Your task to perform on an android device: make emails show in primary in the gmail app Image 0: 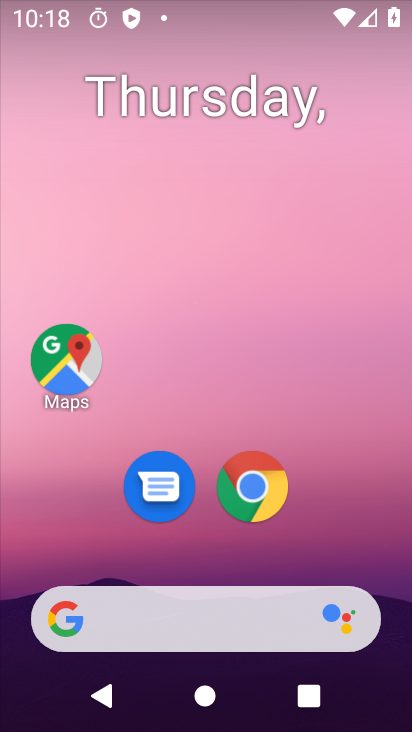
Step 0: drag from (387, 592) to (359, 276)
Your task to perform on an android device: make emails show in primary in the gmail app Image 1: 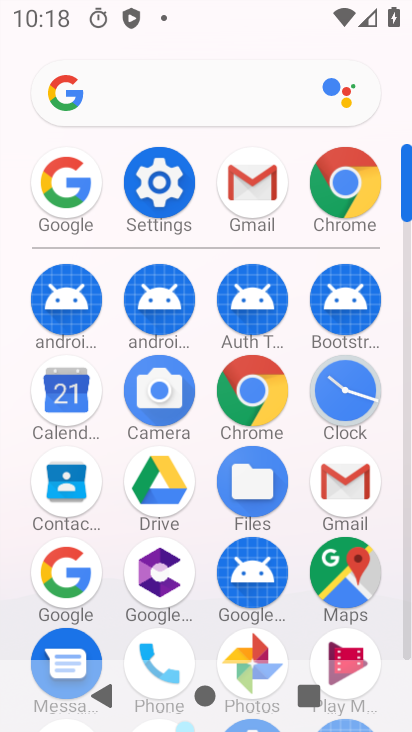
Step 1: drag from (404, 173) to (395, 68)
Your task to perform on an android device: make emails show in primary in the gmail app Image 2: 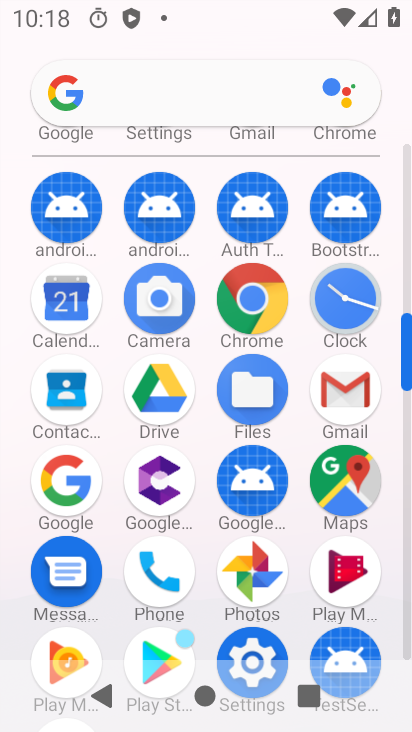
Step 2: drag from (410, 266) to (411, 184)
Your task to perform on an android device: make emails show in primary in the gmail app Image 3: 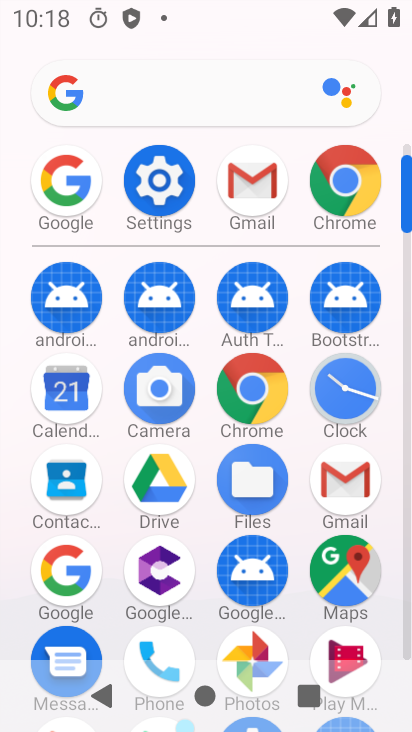
Step 3: click (347, 471)
Your task to perform on an android device: make emails show in primary in the gmail app Image 4: 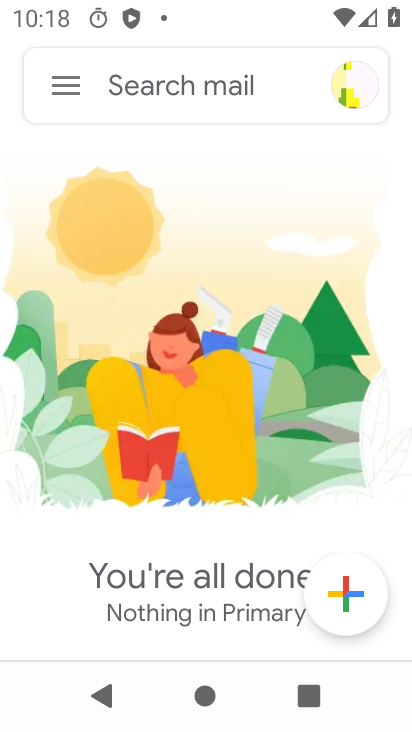
Step 4: click (57, 85)
Your task to perform on an android device: make emails show in primary in the gmail app Image 5: 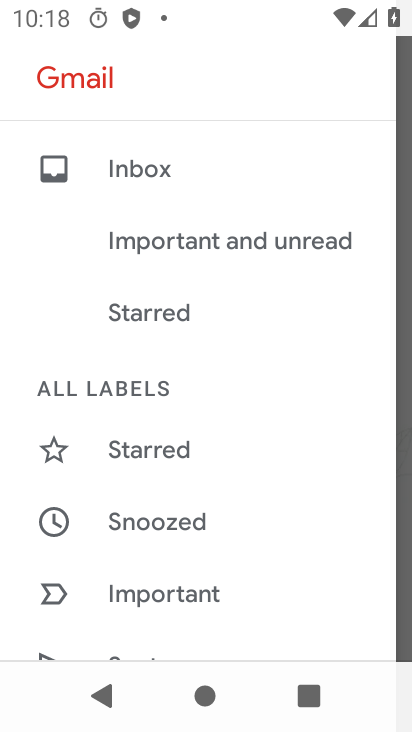
Step 5: drag from (302, 552) to (312, 332)
Your task to perform on an android device: make emails show in primary in the gmail app Image 6: 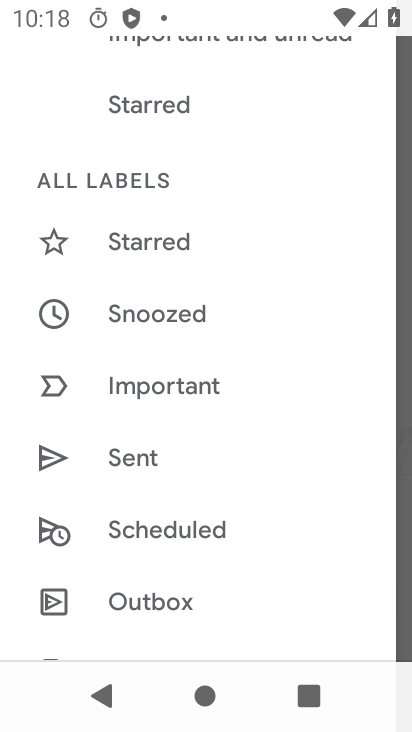
Step 6: drag from (349, 391) to (347, 294)
Your task to perform on an android device: make emails show in primary in the gmail app Image 7: 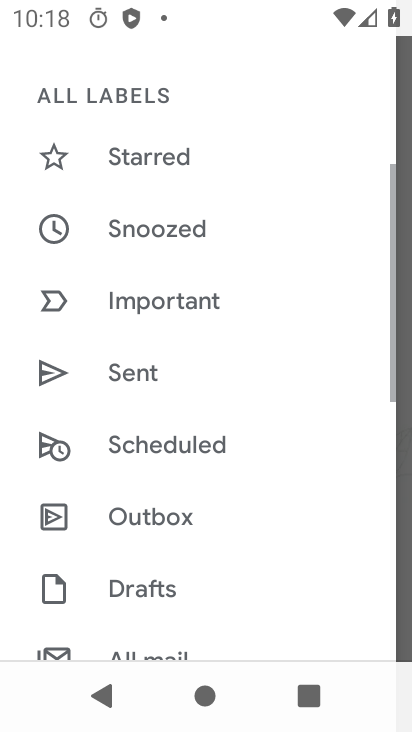
Step 7: drag from (307, 592) to (315, 374)
Your task to perform on an android device: make emails show in primary in the gmail app Image 8: 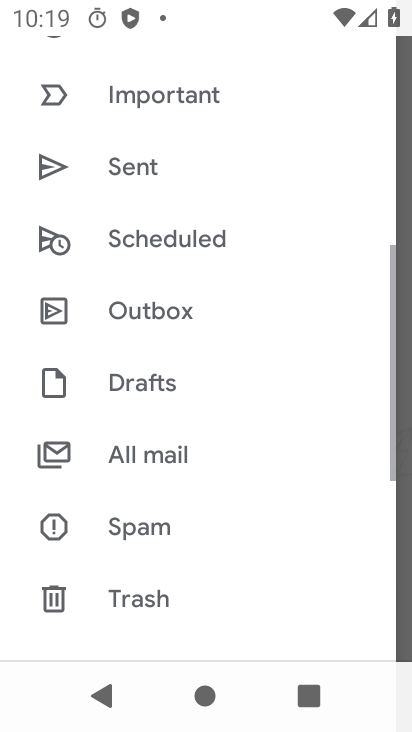
Step 8: drag from (289, 595) to (305, 336)
Your task to perform on an android device: make emails show in primary in the gmail app Image 9: 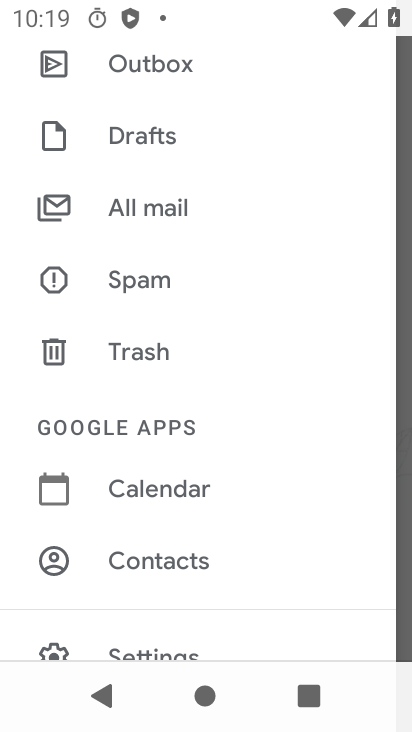
Step 9: drag from (299, 597) to (321, 360)
Your task to perform on an android device: make emails show in primary in the gmail app Image 10: 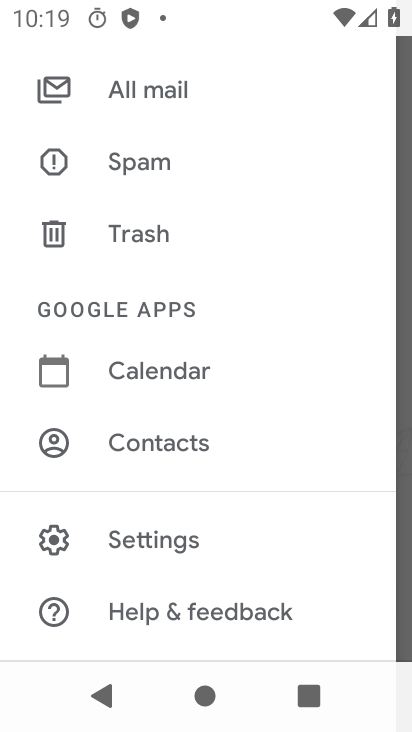
Step 10: click (127, 535)
Your task to perform on an android device: make emails show in primary in the gmail app Image 11: 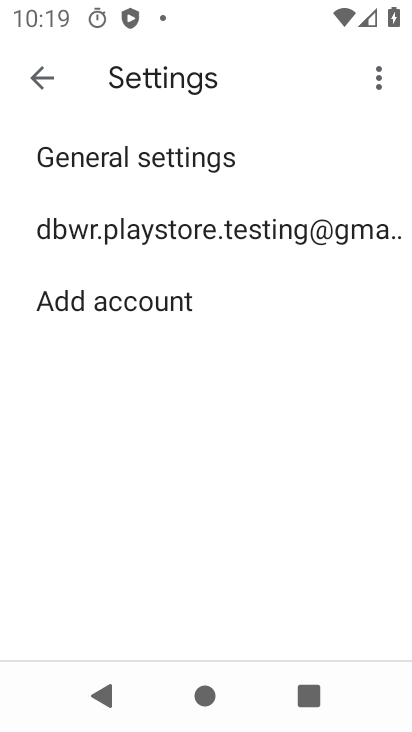
Step 11: click (94, 232)
Your task to perform on an android device: make emails show in primary in the gmail app Image 12: 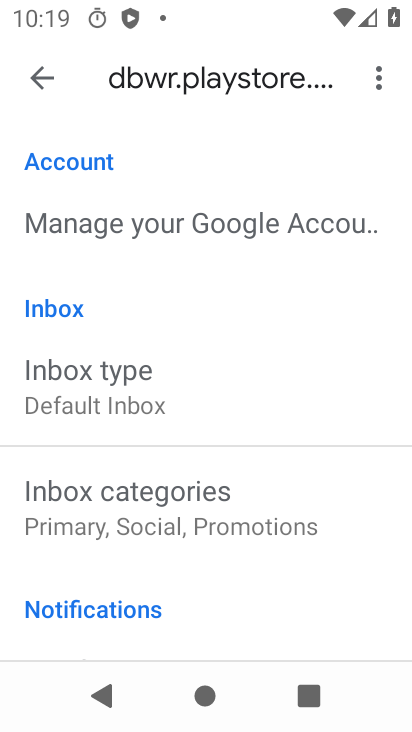
Step 12: drag from (334, 541) to (329, 415)
Your task to perform on an android device: make emails show in primary in the gmail app Image 13: 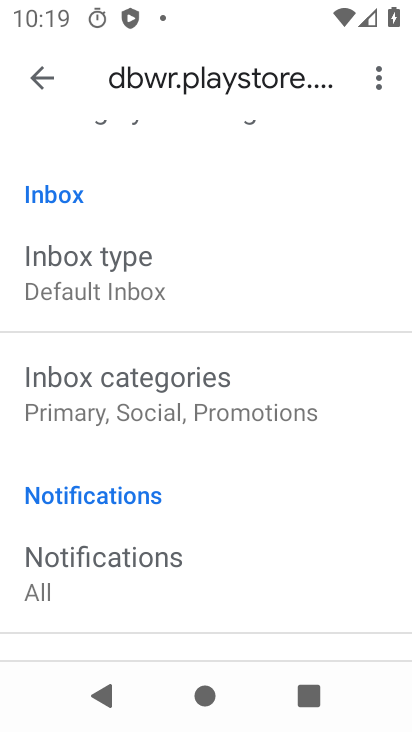
Step 13: click (97, 394)
Your task to perform on an android device: make emails show in primary in the gmail app Image 14: 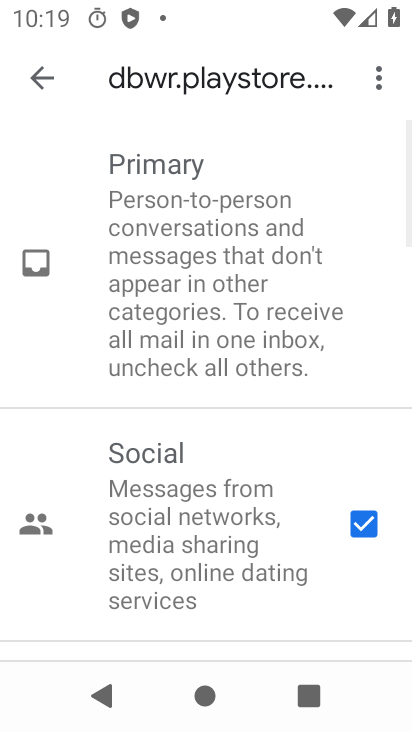
Step 14: click (352, 521)
Your task to perform on an android device: make emails show in primary in the gmail app Image 15: 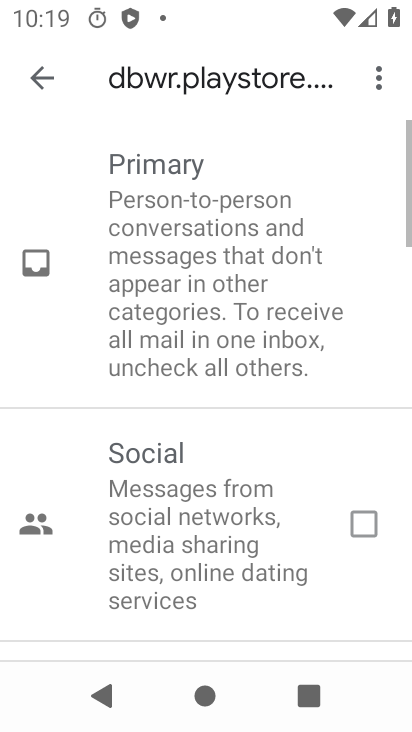
Step 15: drag from (316, 615) to (316, 339)
Your task to perform on an android device: make emails show in primary in the gmail app Image 16: 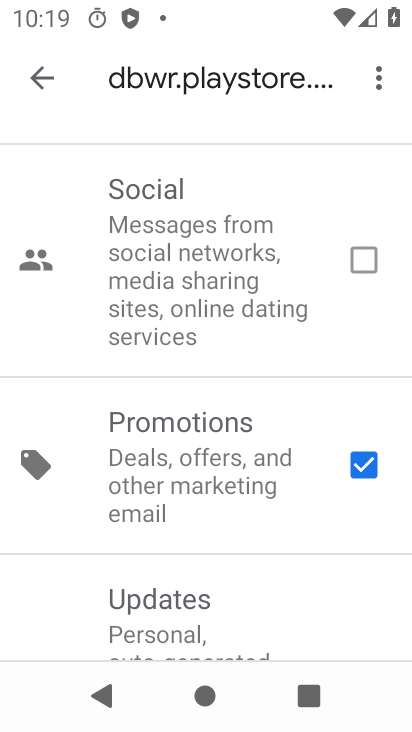
Step 16: click (350, 470)
Your task to perform on an android device: make emails show in primary in the gmail app Image 17: 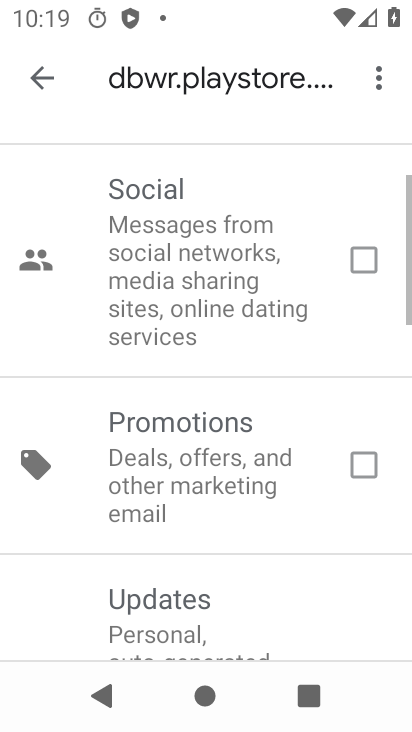
Step 17: click (37, 58)
Your task to perform on an android device: make emails show in primary in the gmail app Image 18: 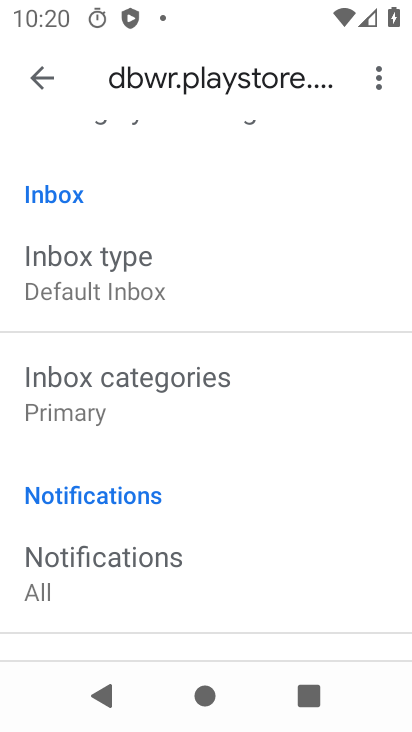
Step 18: task complete